Your task to perform on an android device: toggle translation in the chrome app Image 0: 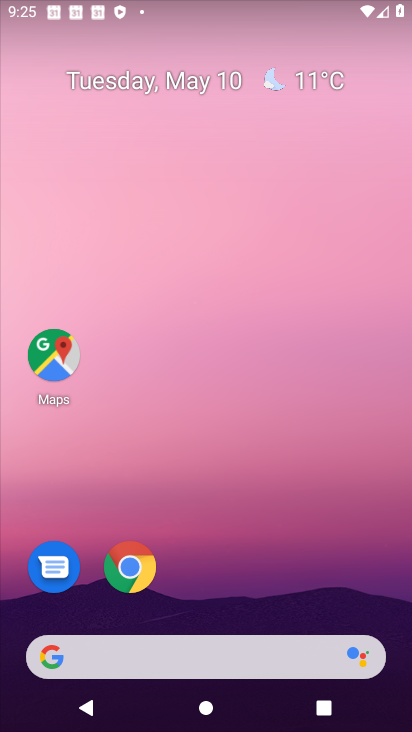
Step 0: click (122, 559)
Your task to perform on an android device: toggle translation in the chrome app Image 1: 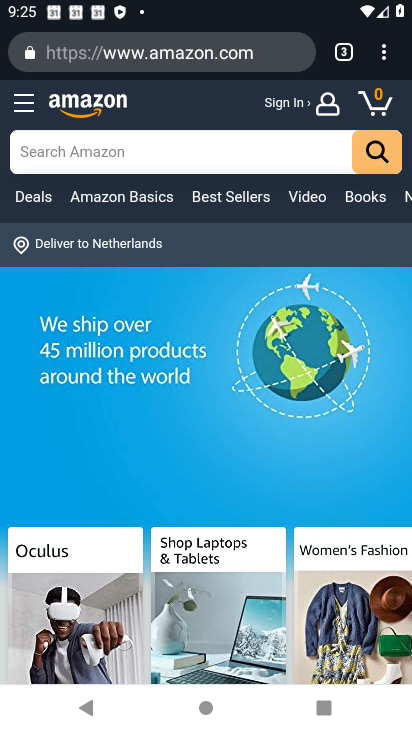
Step 1: click (389, 51)
Your task to perform on an android device: toggle translation in the chrome app Image 2: 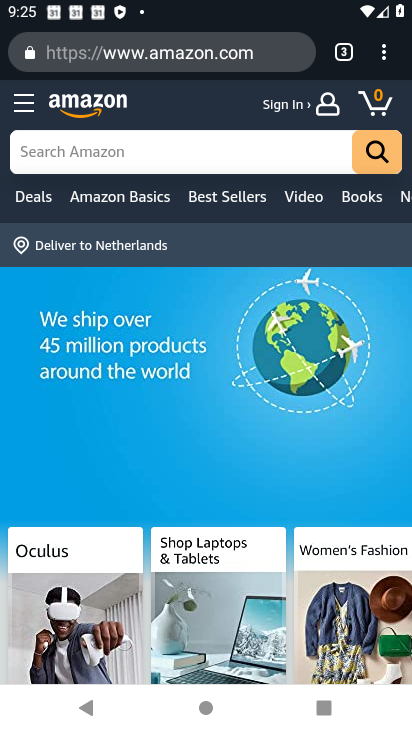
Step 2: click (389, 51)
Your task to perform on an android device: toggle translation in the chrome app Image 3: 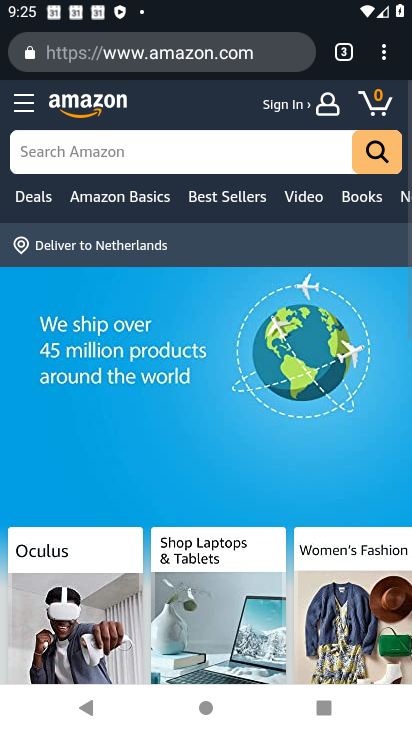
Step 3: click (378, 50)
Your task to perform on an android device: toggle translation in the chrome app Image 4: 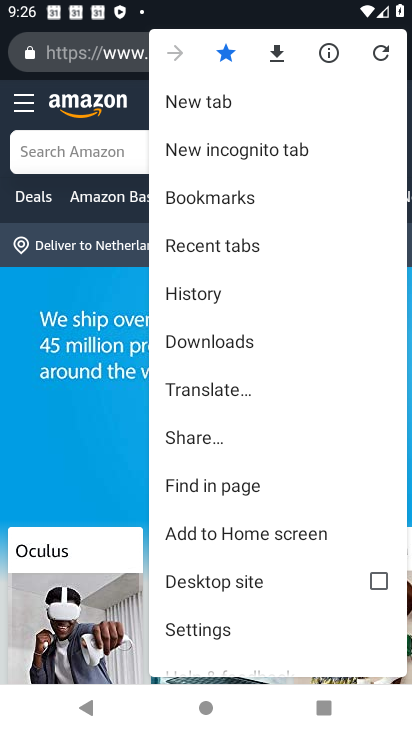
Step 4: click (192, 624)
Your task to perform on an android device: toggle translation in the chrome app Image 5: 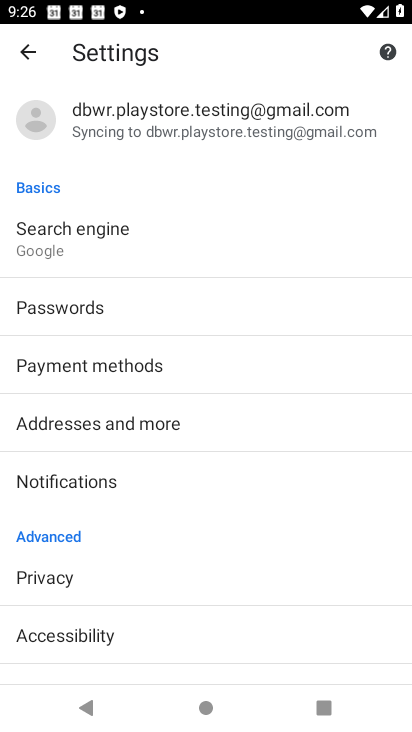
Step 5: drag from (108, 632) to (146, 286)
Your task to perform on an android device: toggle translation in the chrome app Image 6: 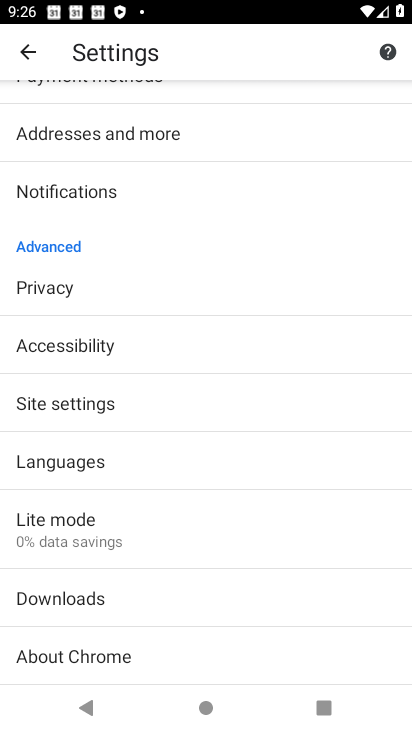
Step 6: click (97, 461)
Your task to perform on an android device: toggle translation in the chrome app Image 7: 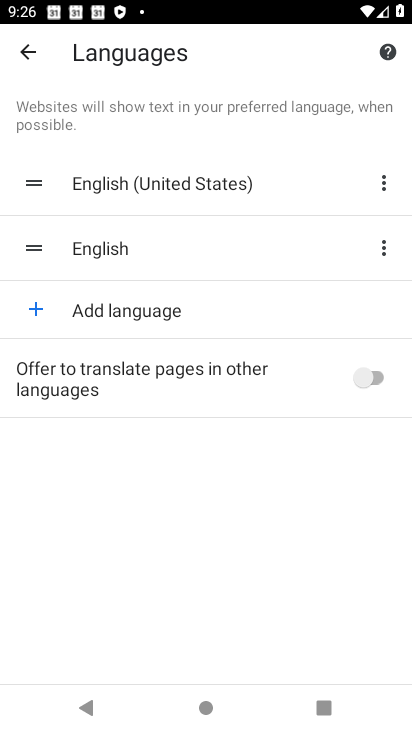
Step 7: click (376, 370)
Your task to perform on an android device: toggle translation in the chrome app Image 8: 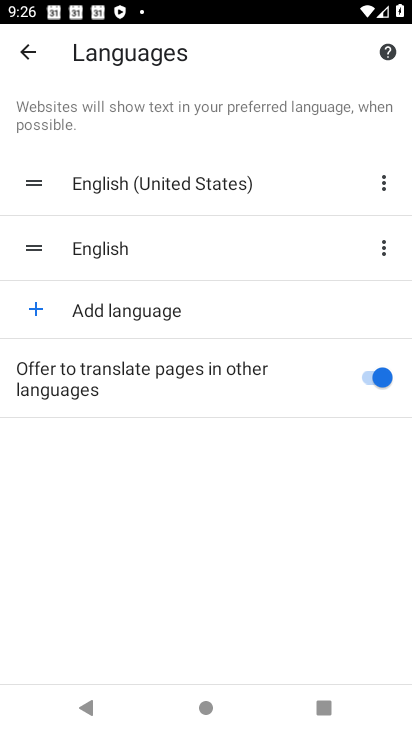
Step 8: task complete